Your task to perform on an android device: empty trash in google photos Image 0: 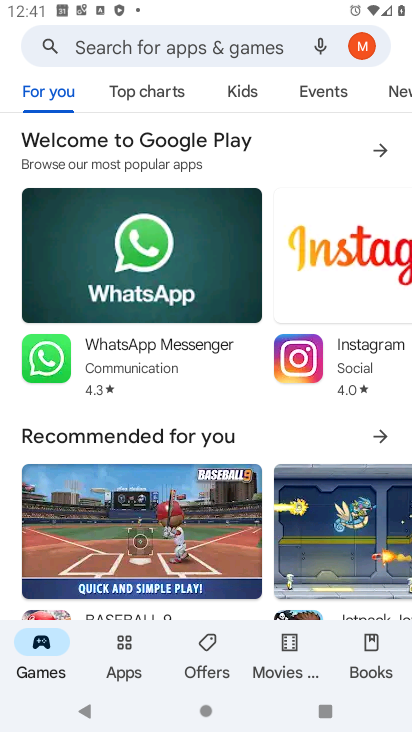
Step 0: press home button
Your task to perform on an android device: empty trash in google photos Image 1: 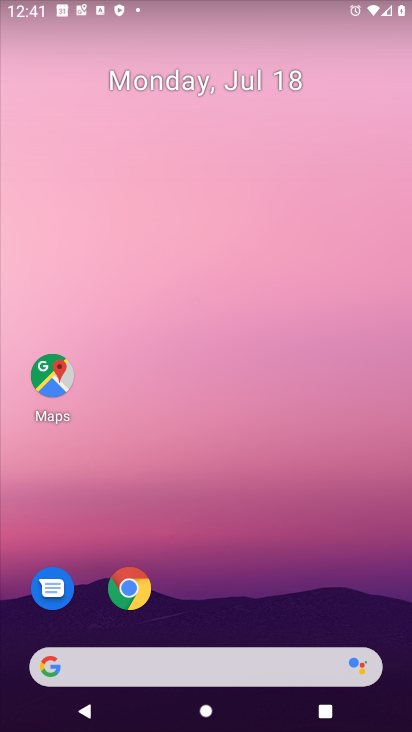
Step 1: drag from (232, 518) to (260, 189)
Your task to perform on an android device: empty trash in google photos Image 2: 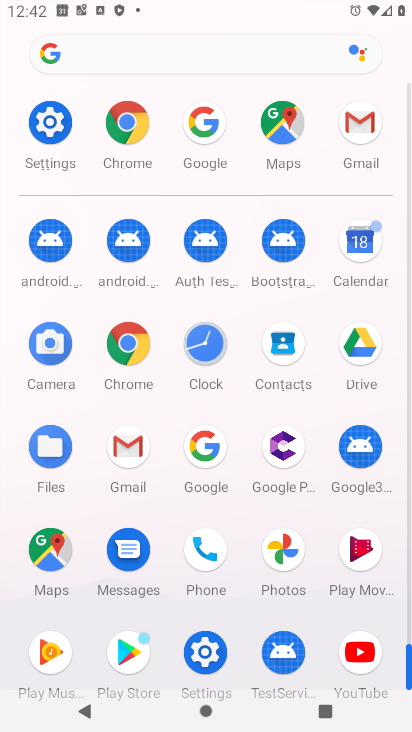
Step 2: click (284, 578)
Your task to perform on an android device: empty trash in google photos Image 3: 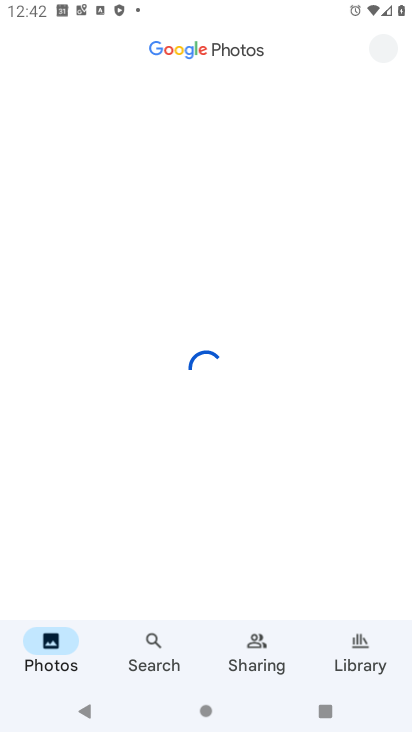
Step 3: press home button
Your task to perform on an android device: empty trash in google photos Image 4: 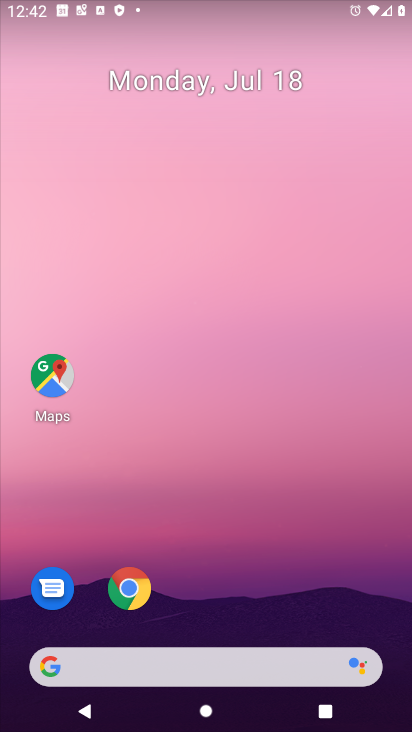
Step 4: drag from (251, 648) to (278, 207)
Your task to perform on an android device: empty trash in google photos Image 5: 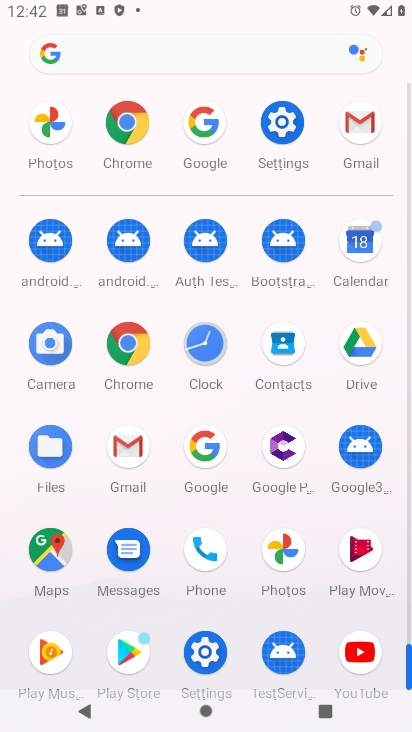
Step 5: click (290, 573)
Your task to perform on an android device: empty trash in google photos Image 6: 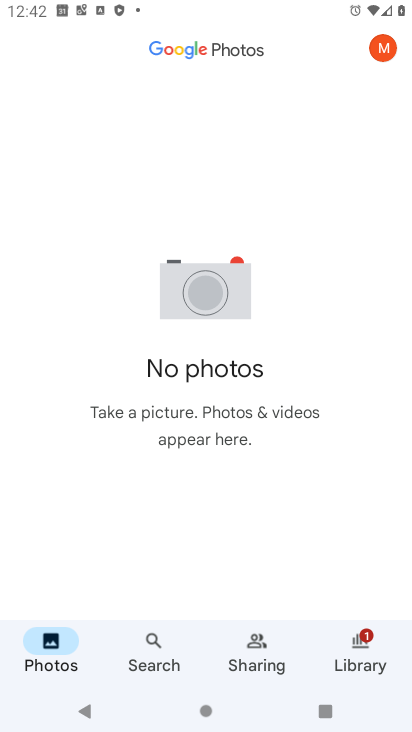
Step 6: click (375, 48)
Your task to perform on an android device: empty trash in google photos Image 7: 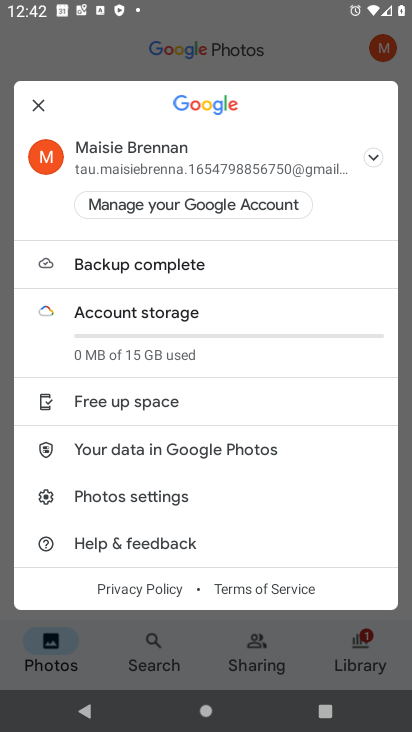
Step 7: task complete